Your task to perform on an android device: check android version Image 0: 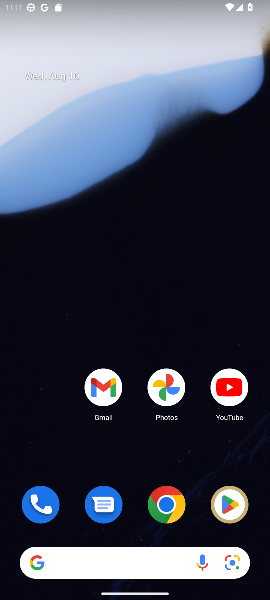
Step 0: press home button
Your task to perform on an android device: check android version Image 1: 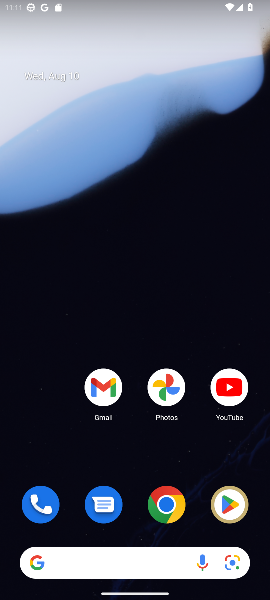
Step 1: drag from (60, 422) to (269, 443)
Your task to perform on an android device: check android version Image 2: 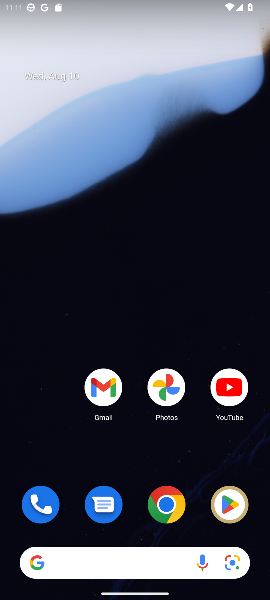
Step 2: drag from (65, 434) to (63, 21)
Your task to perform on an android device: check android version Image 3: 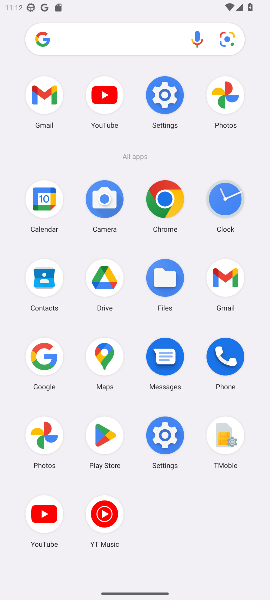
Step 3: click (160, 95)
Your task to perform on an android device: check android version Image 4: 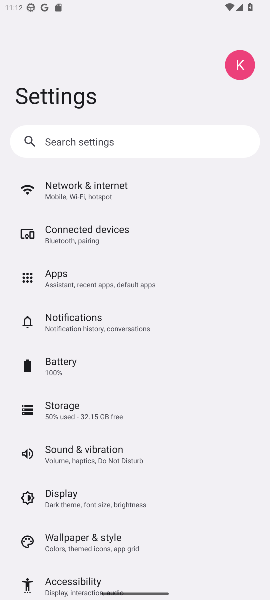
Step 4: drag from (121, 564) to (130, 92)
Your task to perform on an android device: check android version Image 5: 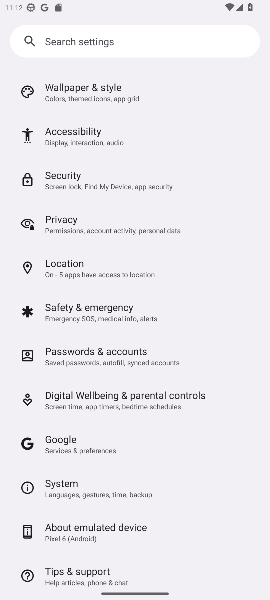
Step 5: drag from (105, 557) to (144, 271)
Your task to perform on an android device: check android version Image 6: 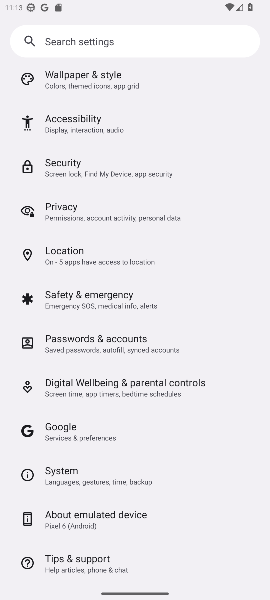
Step 6: click (106, 355)
Your task to perform on an android device: check android version Image 7: 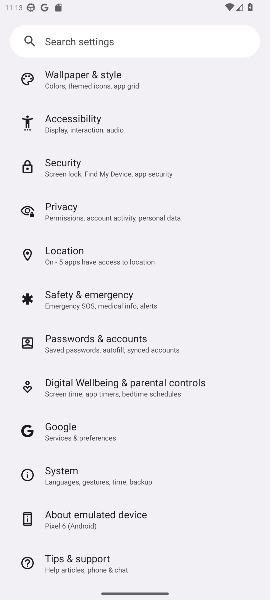
Step 7: click (104, 527)
Your task to perform on an android device: check android version Image 8: 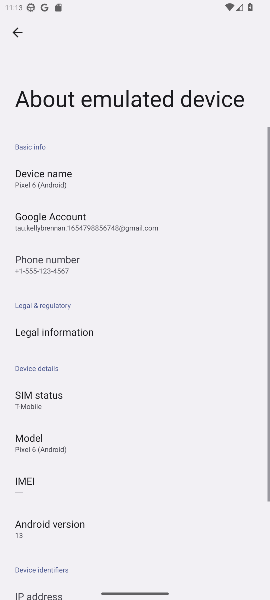
Step 8: click (31, 530)
Your task to perform on an android device: check android version Image 9: 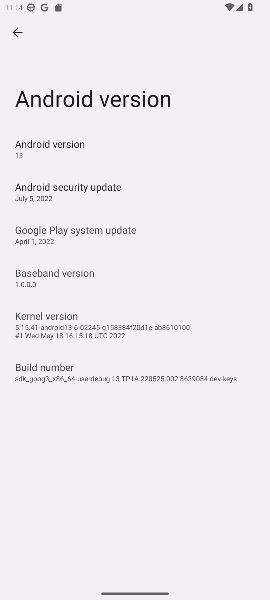
Step 9: click (66, 155)
Your task to perform on an android device: check android version Image 10: 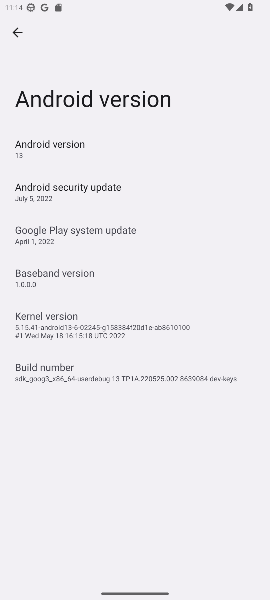
Step 10: click (69, 153)
Your task to perform on an android device: check android version Image 11: 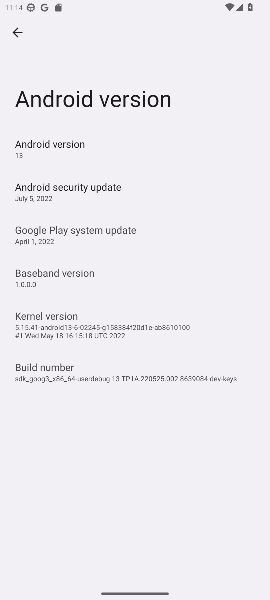
Step 11: task complete